Your task to perform on an android device: Check the news Image 0: 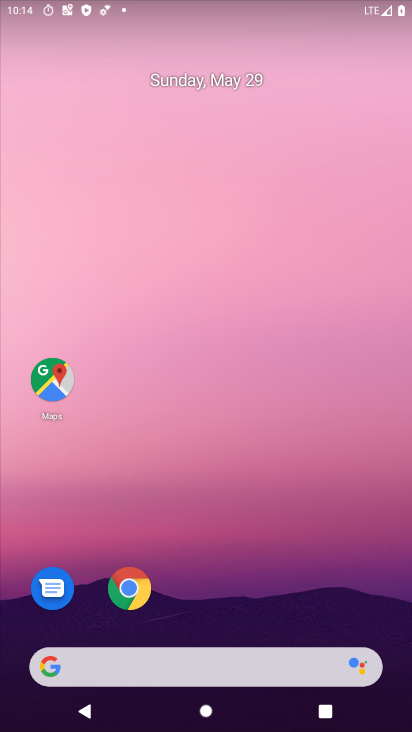
Step 0: drag from (248, 576) to (242, 226)
Your task to perform on an android device: Check the news Image 1: 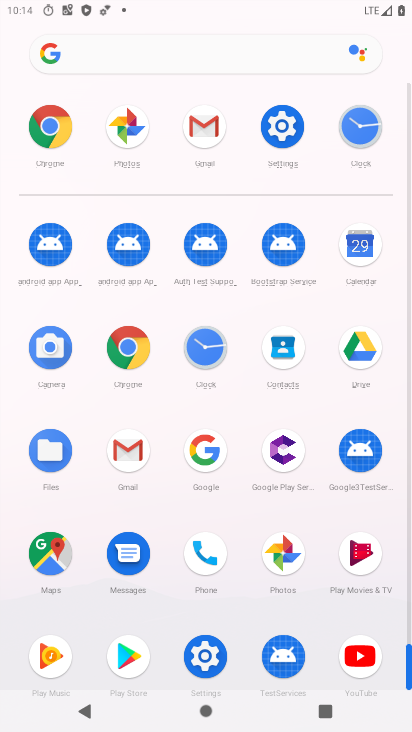
Step 1: click (195, 464)
Your task to perform on an android device: Check the news Image 2: 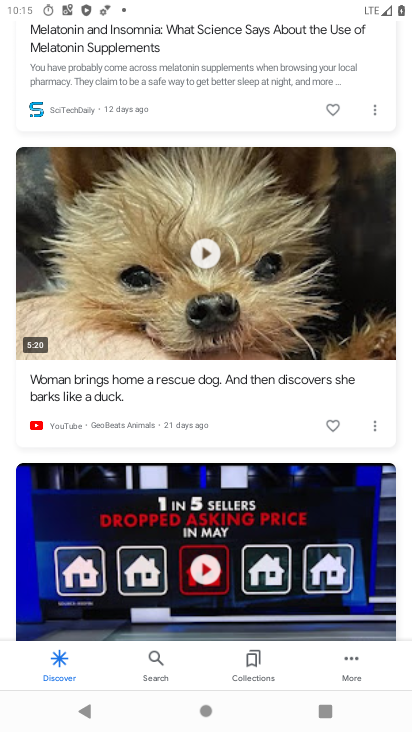
Step 2: task complete